Your task to perform on an android device: check google app version Image 0: 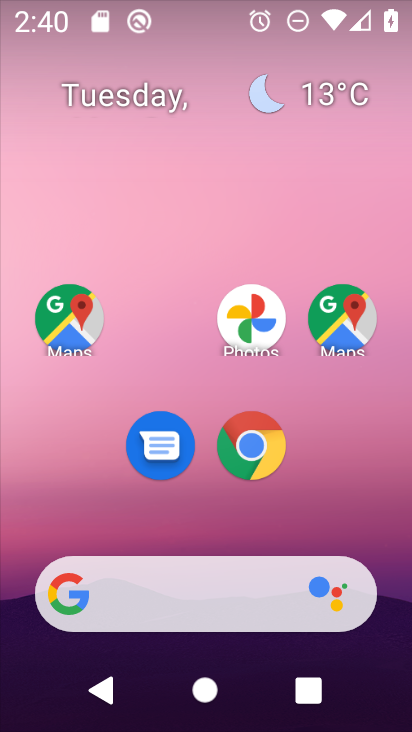
Step 0: drag from (391, 569) to (392, 193)
Your task to perform on an android device: check google app version Image 1: 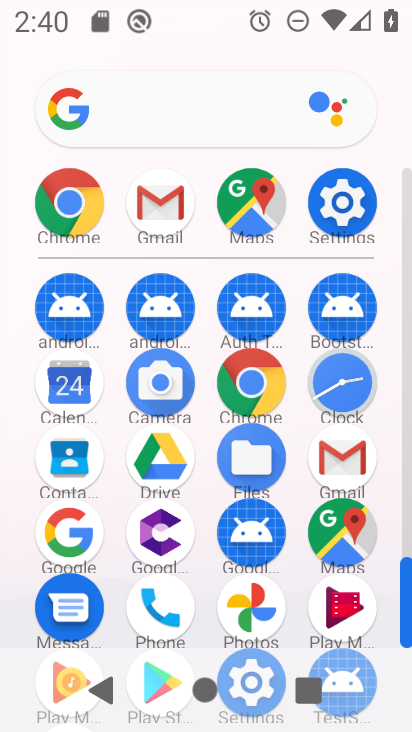
Step 1: drag from (390, 529) to (383, 293)
Your task to perform on an android device: check google app version Image 2: 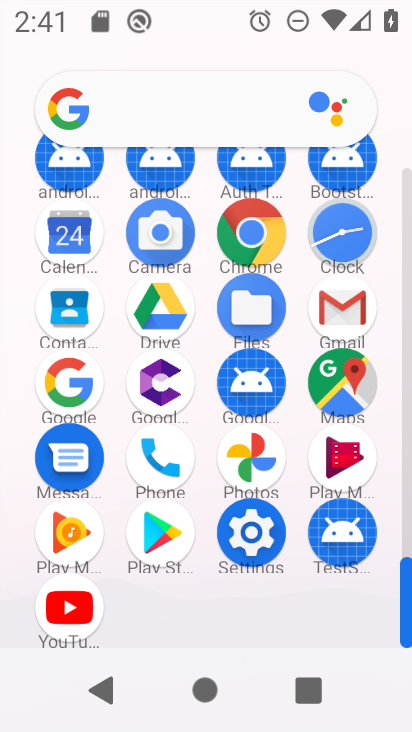
Step 2: click (85, 389)
Your task to perform on an android device: check google app version Image 3: 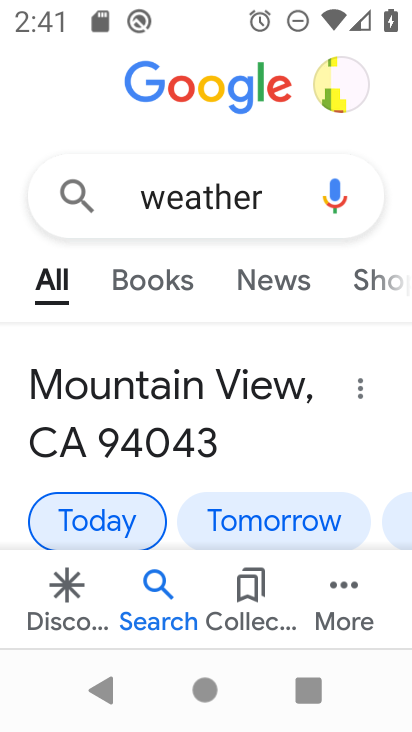
Step 3: click (338, 593)
Your task to perform on an android device: check google app version Image 4: 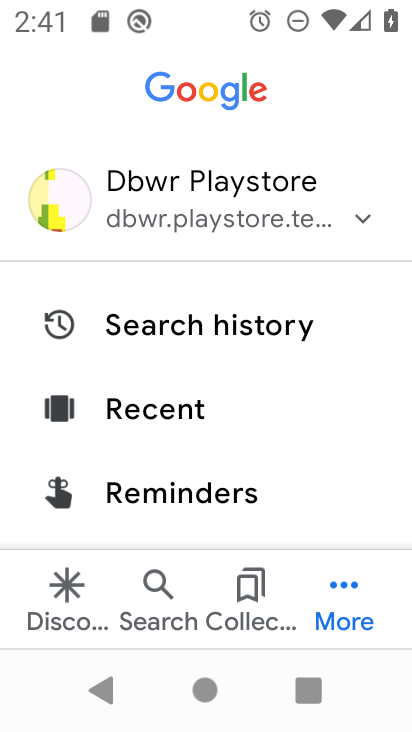
Step 4: drag from (315, 480) to (321, 394)
Your task to perform on an android device: check google app version Image 5: 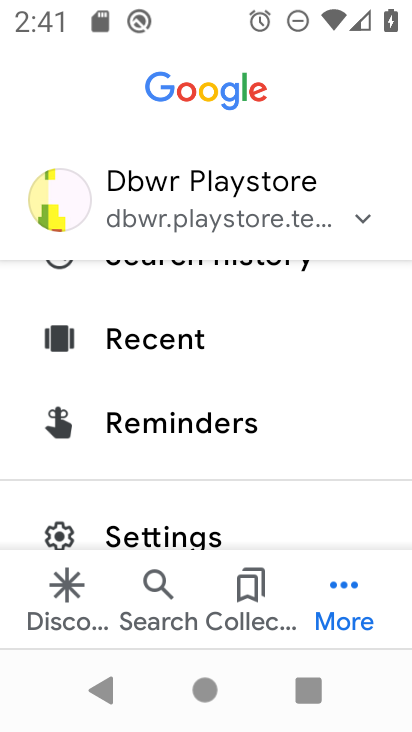
Step 5: drag from (342, 501) to (349, 407)
Your task to perform on an android device: check google app version Image 6: 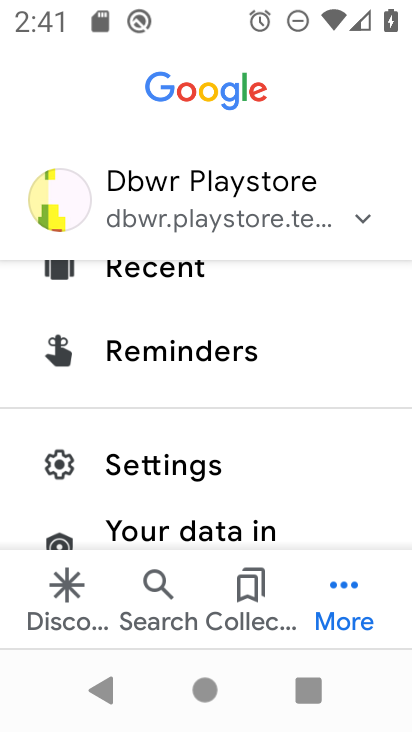
Step 6: drag from (349, 499) to (351, 407)
Your task to perform on an android device: check google app version Image 7: 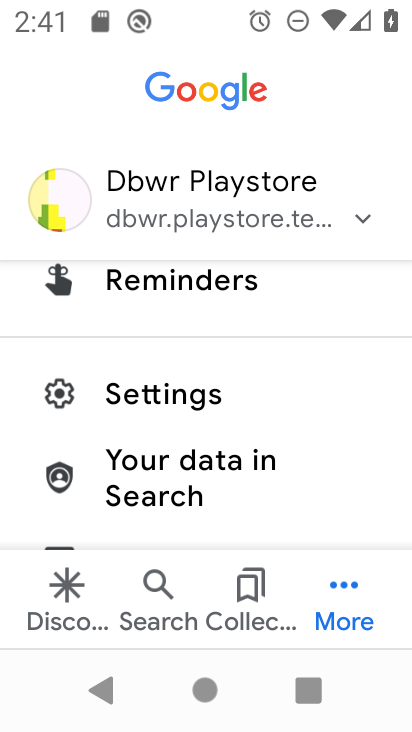
Step 7: click (241, 412)
Your task to perform on an android device: check google app version Image 8: 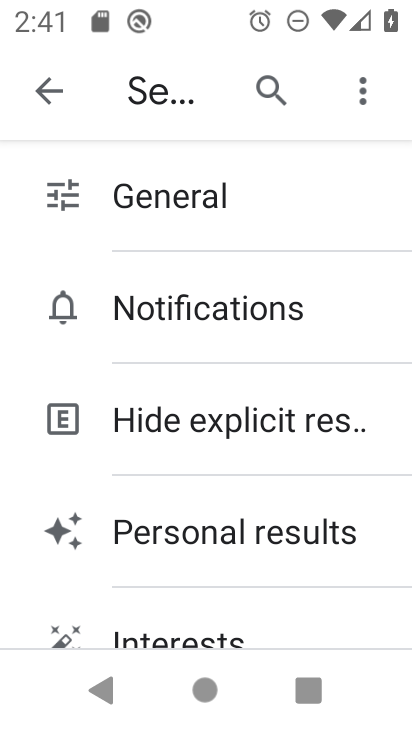
Step 8: drag from (353, 544) to (354, 475)
Your task to perform on an android device: check google app version Image 9: 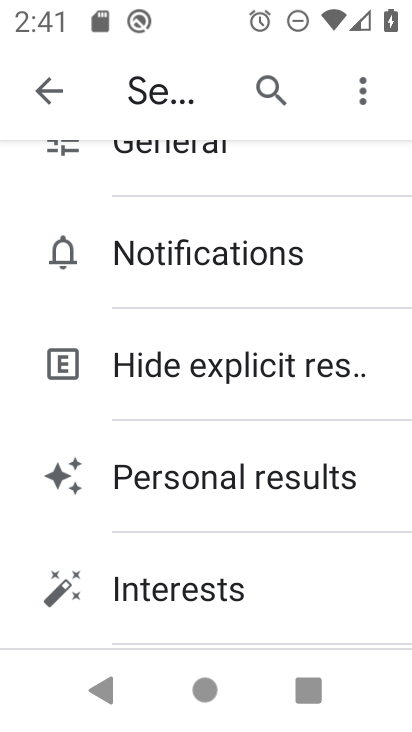
Step 9: drag from (357, 547) to (357, 472)
Your task to perform on an android device: check google app version Image 10: 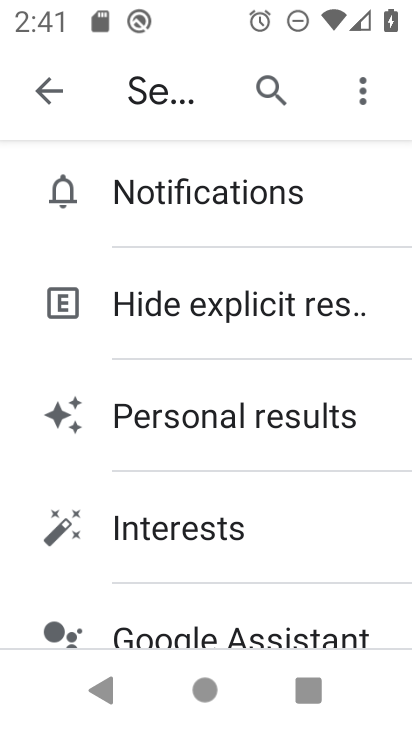
Step 10: drag from (349, 547) to (349, 470)
Your task to perform on an android device: check google app version Image 11: 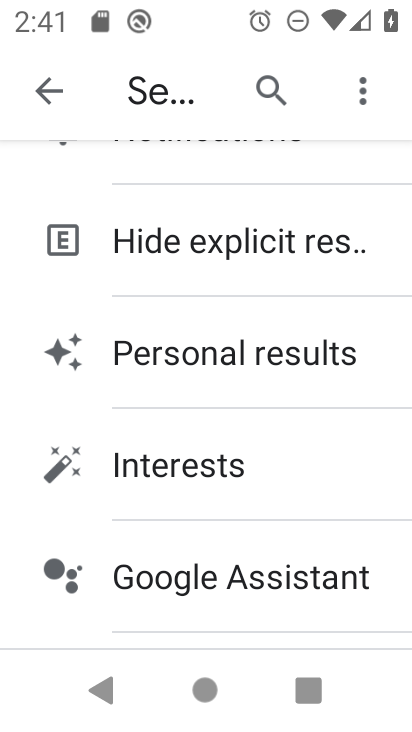
Step 11: drag from (336, 548) to (338, 471)
Your task to perform on an android device: check google app version Image 12: 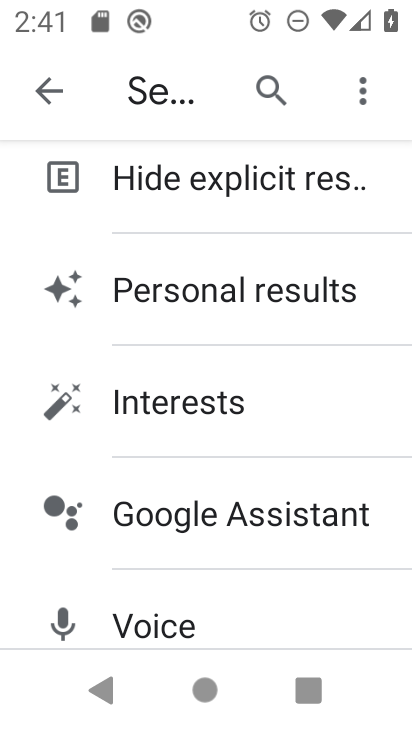
Step 12: drag from (334, 549) to (335, 463)
Your task to perform on an android device: check google app version Image 13: 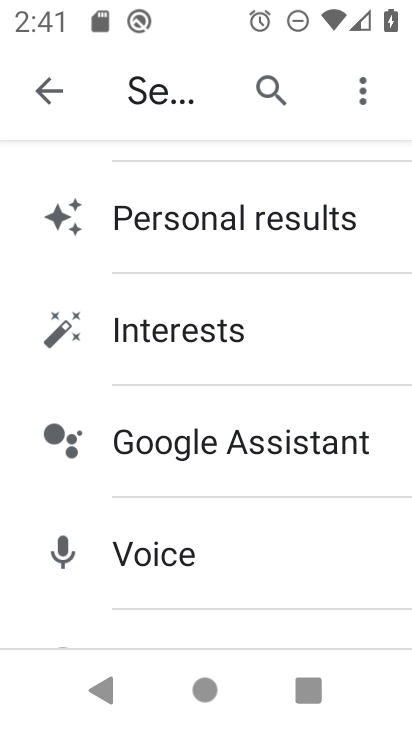
Step 13: drag from (333, 551) to (333, 473)
Your task to perform on an android device: check google app version Image 14: 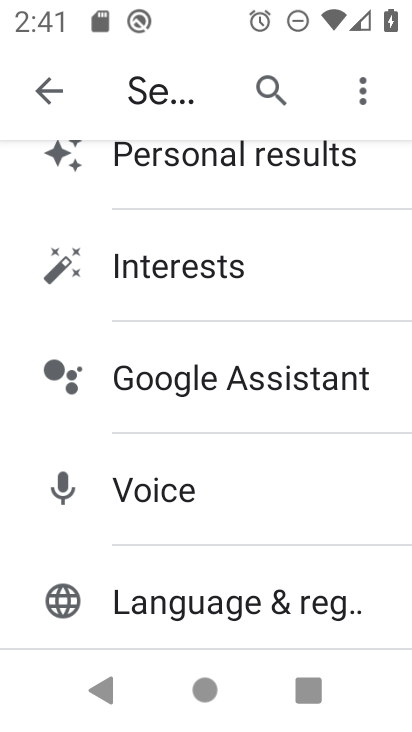
Step 14: drag from (328, 550) to (331, 444)
Your task to perform on an android device: check google app version Image 15: 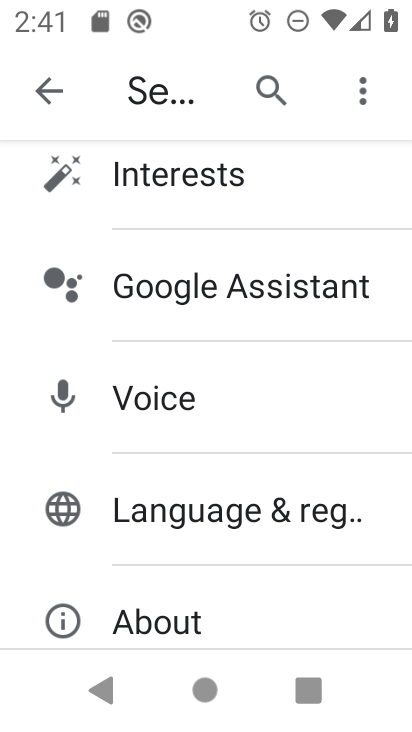
Step 15: drag from (329, 556) to (336, 483)
Your task to perform on an android device: check google app version Image 16: 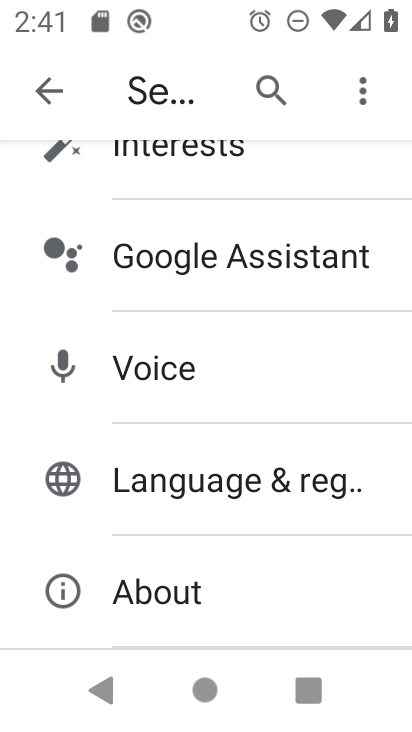
Step 16: click (319, 581)
Your task to perform on an android device: check google app version Image 17: 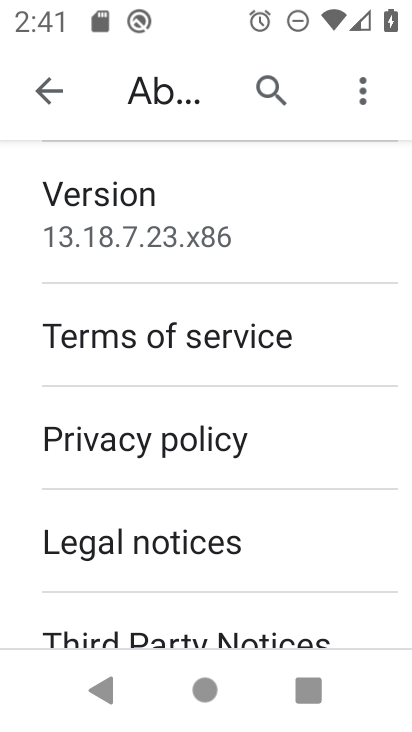
Step 17: task complete